Your task to perform on an android device: Search for pizza restaurants on Maps Image 0: 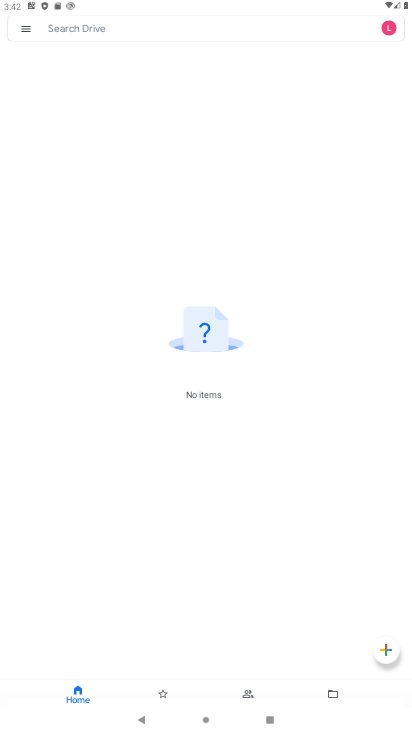
Step 0: press home button
Your task to perform on an android device: Search for pizza restaurants on Maps Image 1: 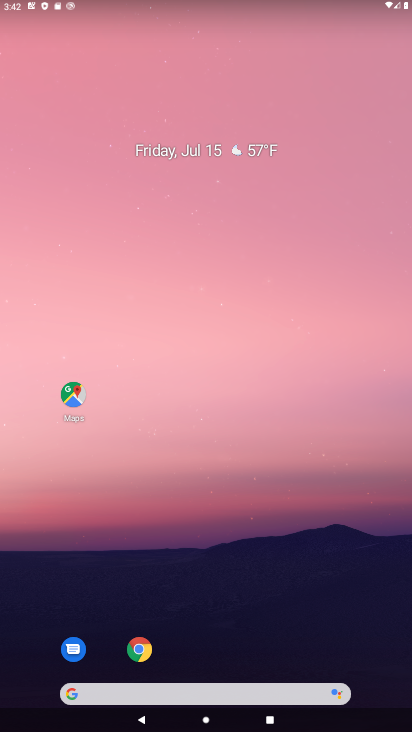
Step 1: drag from (225, 709) to (239, 228)
Your task to perform on an android device: Search for pizza restaurants on Maps Image 2: 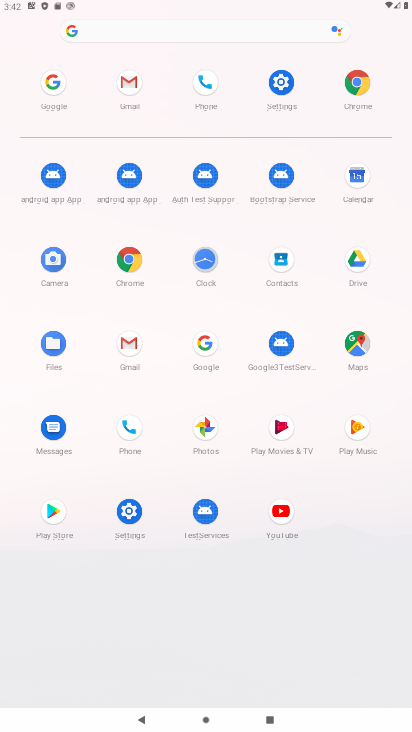
Step 2: click (359, 324)
Your task to perform on an android device: Search for pizza restaurants on Maps Image 3: 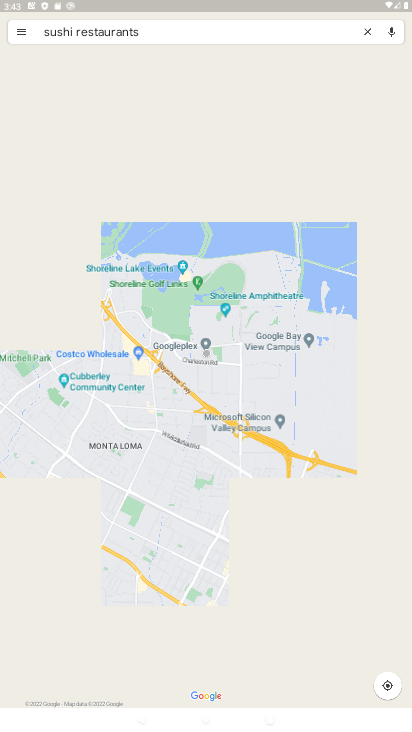
Step 3: click (165, 31)
Your task to perform on an android device: Search for pizza restaurants on Maps Image 4: 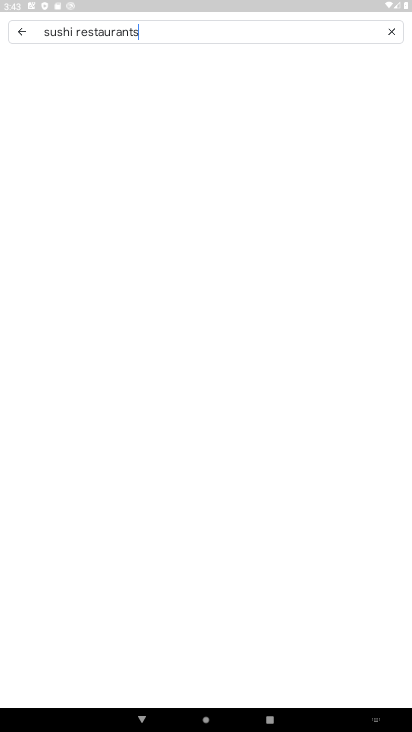
Step 4: click (181, 31)
Your task to perform on an android device: Search for pizza restaurants on Maps Image 5: 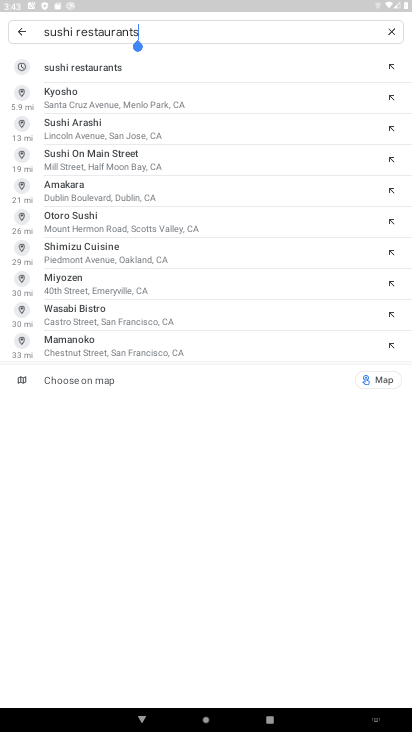
Step 5: click (393, 28)
Your task to perform on an android device: Search for pizza restaurants on Maps Image 6: 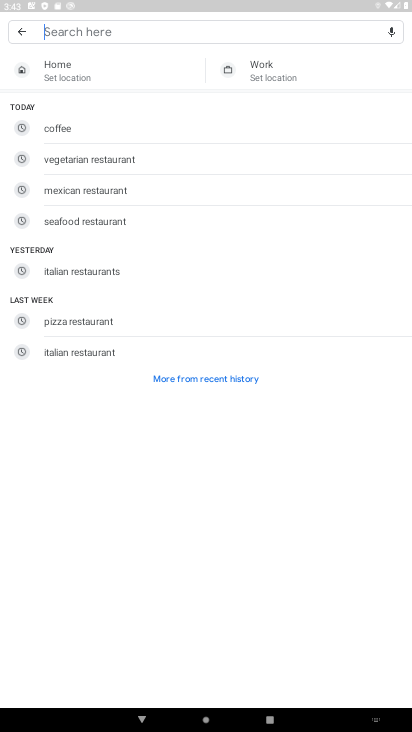
Step 6: type "Pizza restaurants"
Your task to perform on an android device: Search for pizza restaurants on Maps Image 7: 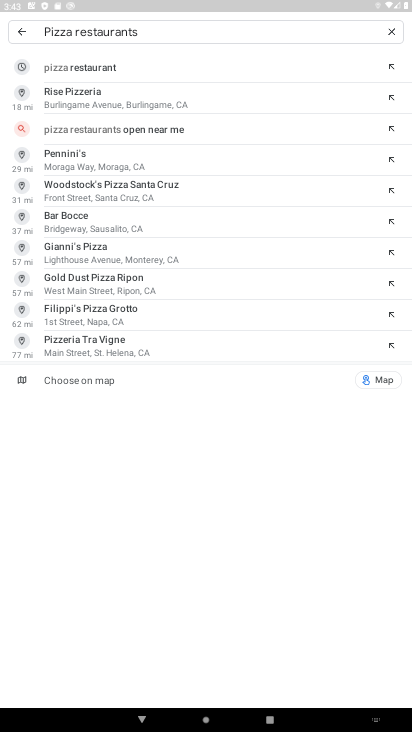
Step 7: click (81, 65)
Your task to perform on an android device: Search for pizza restaurants on Maps Image 8: 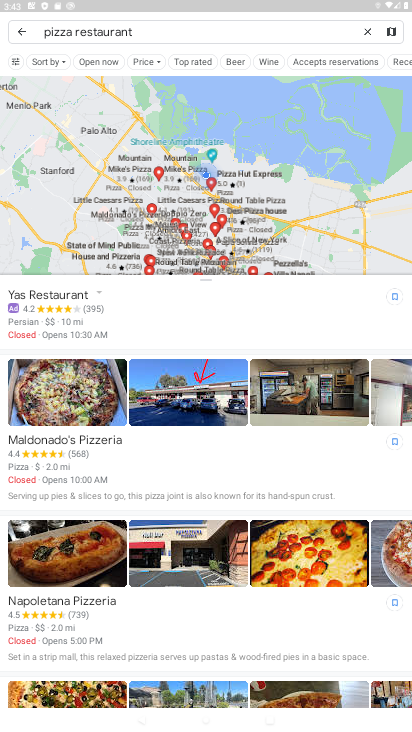
Step 8: task complete